Your task to perform on an android device: Open notification settings Image 0: 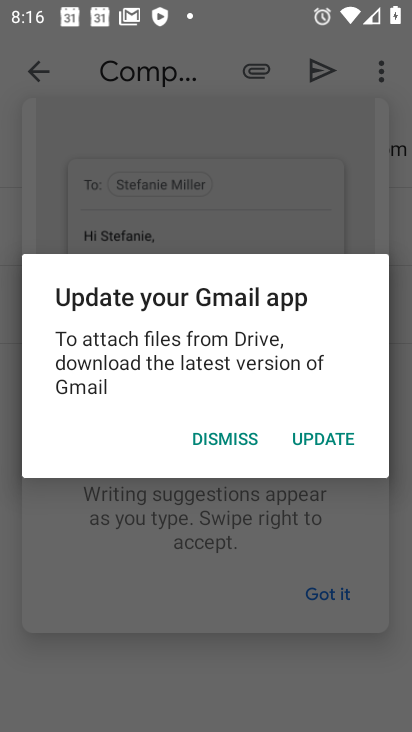
Step 0: click (221, 443)
Your task to perform on an android device: Open notification settings Image 1: 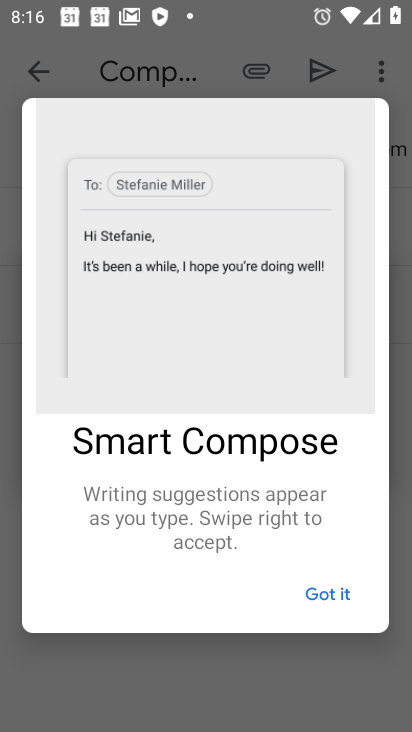
Step 1: click (329, 585)
Your task to perform on an android device: Open notification settings Image 2: 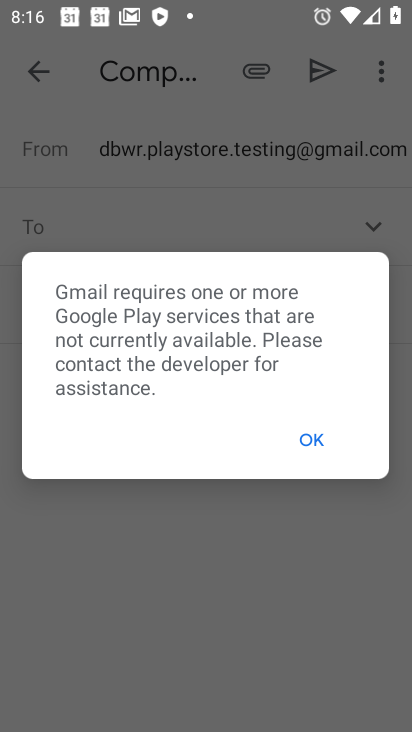
Step 2: click (318, 439)
Your task to perform on an android device: Open notification settings Image 3: 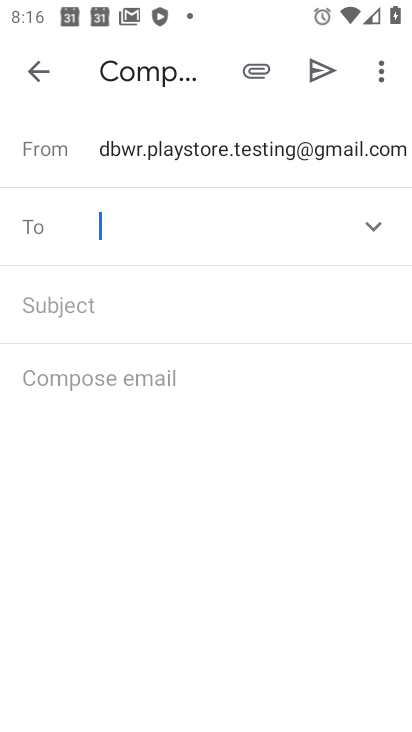
Step 3: click (32, 74)
Your task to perform on an android device: Open notification settings Image 4: 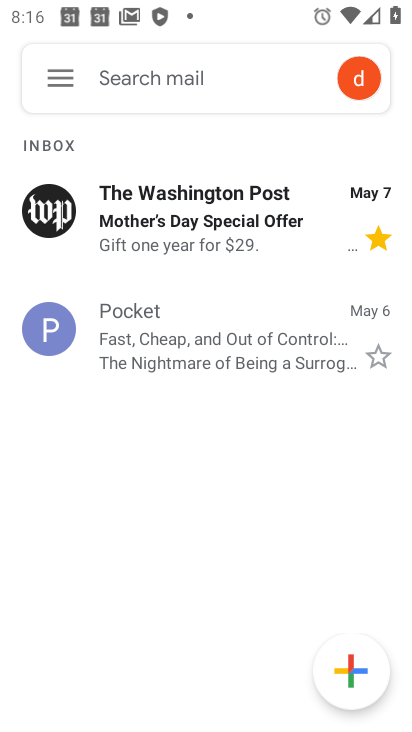
Step 4: press home button
Your task to perform on an android device: Open notification settings Image 5: 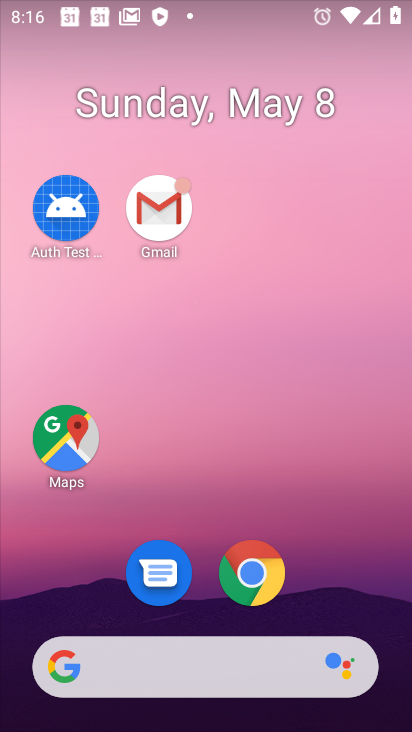
Step 5: drag from (359, 592) to (214, 78)
Your task to perform on an android device: Open notification settings Image 6: 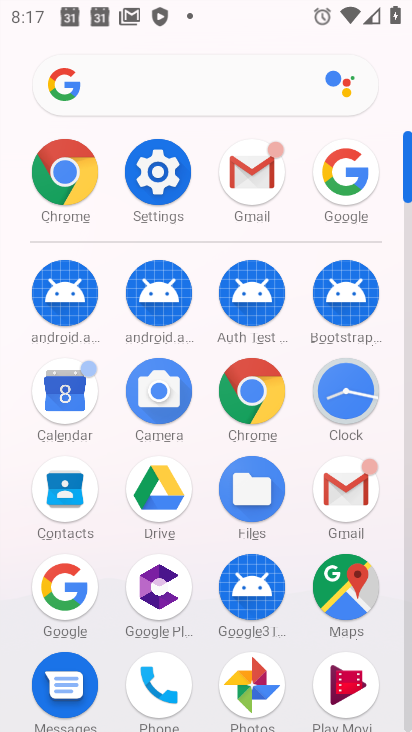
Step 6: click (154, 167)
Your task to perform on an android device: Open notification settings Image 7: 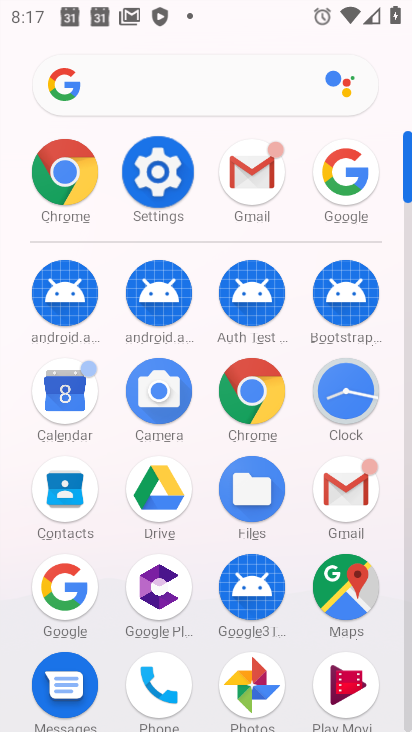
Step 7: click (154, 167)
Your task to perform on an android device: Open notification settings Image 8: 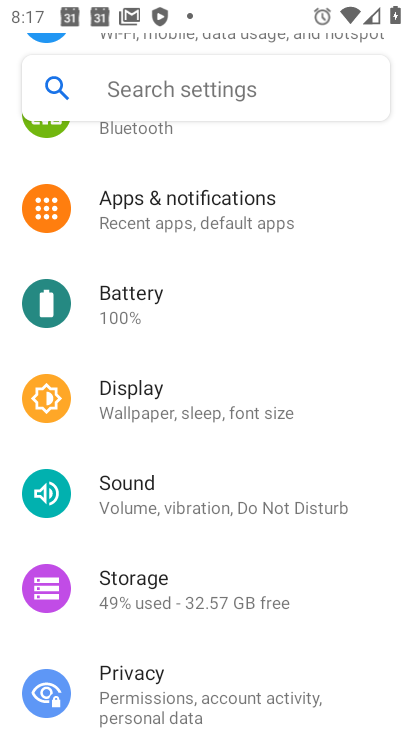
Step 8: click (186, 207)
Your task to perform on an android device: Open notification settings Image 9: 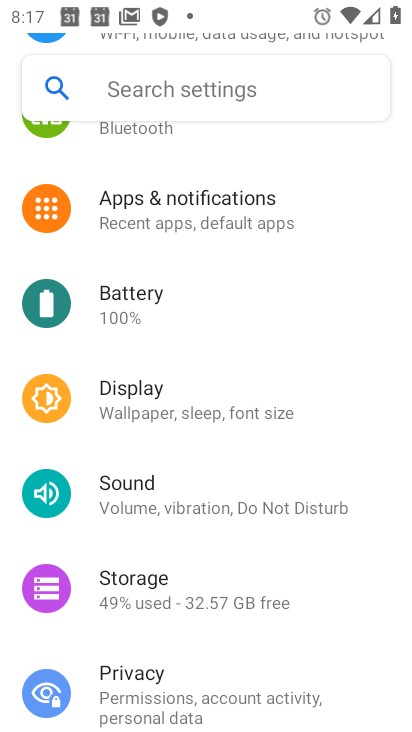
Step 9: click (186, 207)
Your task to perform on an android device: Open notification settings Image 10: 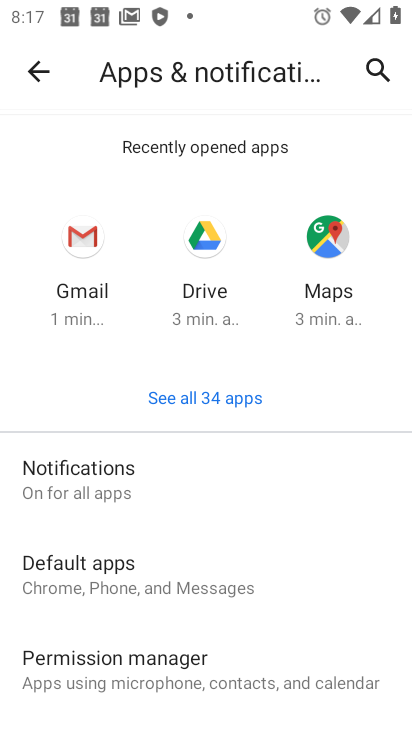
Step 10: click (78, 472)
Your task to perform on an android device: Open notification settings Image 11: 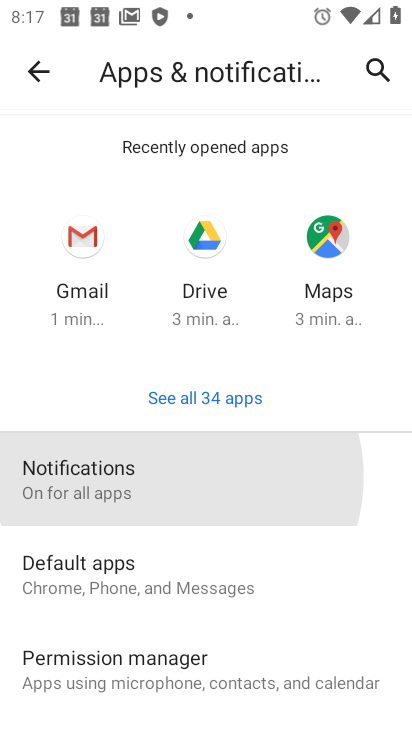
Step 11: click (80, 480)
Your task to perform on an android device: Open notification settings Image 12: 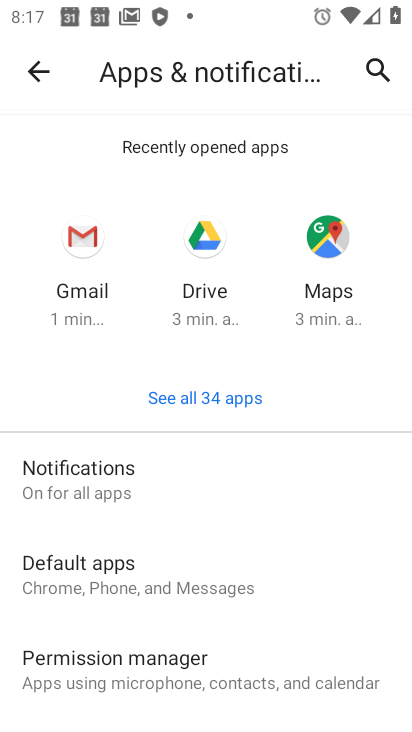
Step 12: click (80, 480)
Your task to perform on an android device: Open notification settings Image 13: 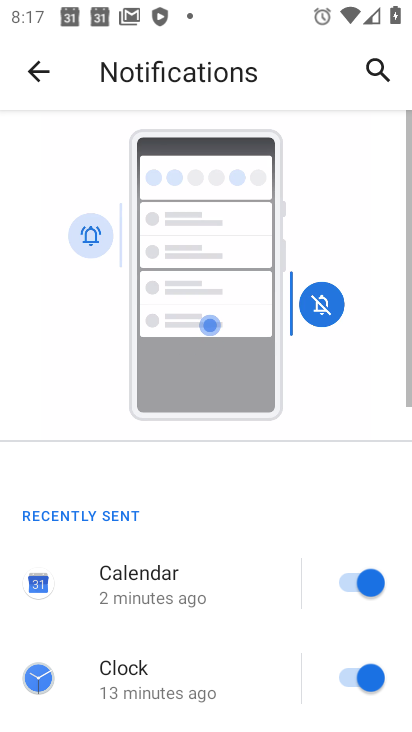
Step 13: drag from (174, 606) to (109, 188)
Your task to perform on an android device: Open notification settings Image 14: 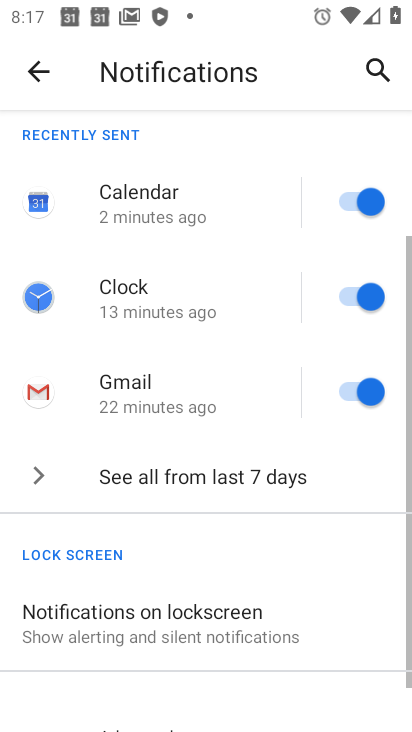
Step 14: click (120, 100)
Your task to perform on an android device: Open notification settings Image 15: 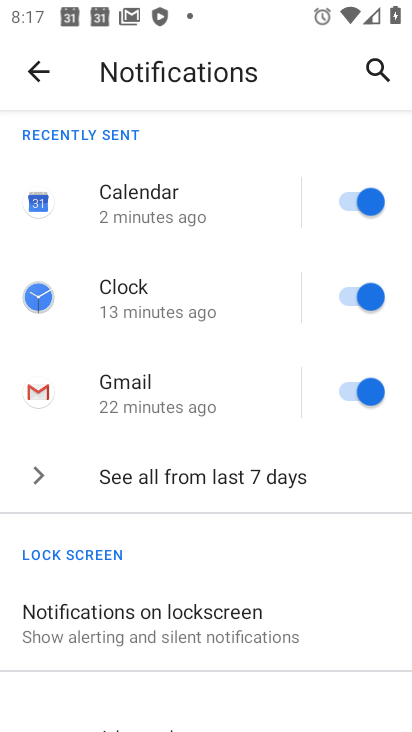
Step 15: drag from (201, 526) to (134, 59)
Your task to perform on an android device: Open notification settings Image 16: 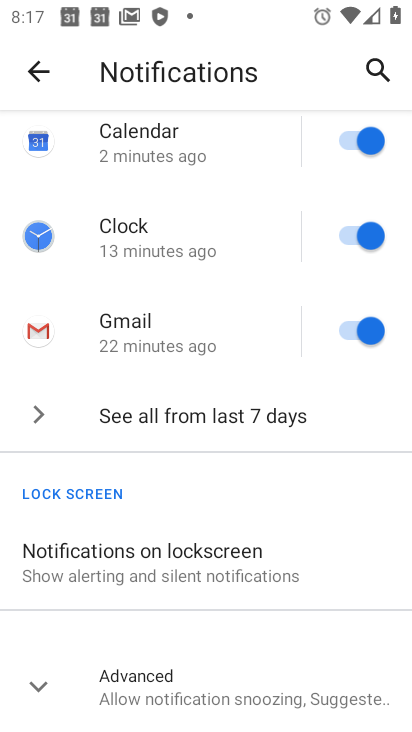
Step 16: drag from (203, 566) to (174, 207)
Your task to perform on an android device: Open notification settings Image 17: 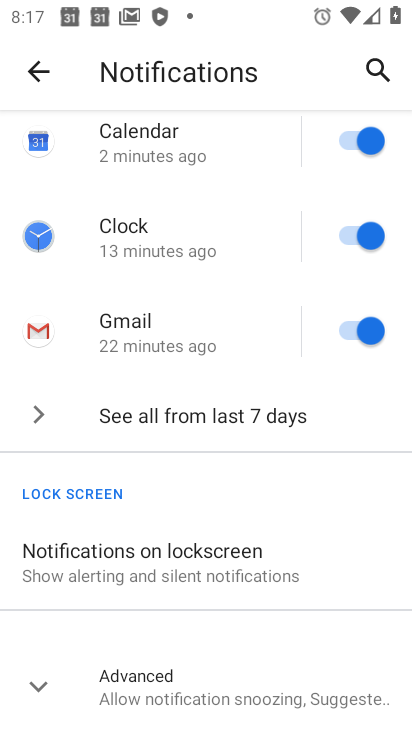
Step 17: click (174, 686)
Your task to perform on an android device: Open notification settings Image 18: 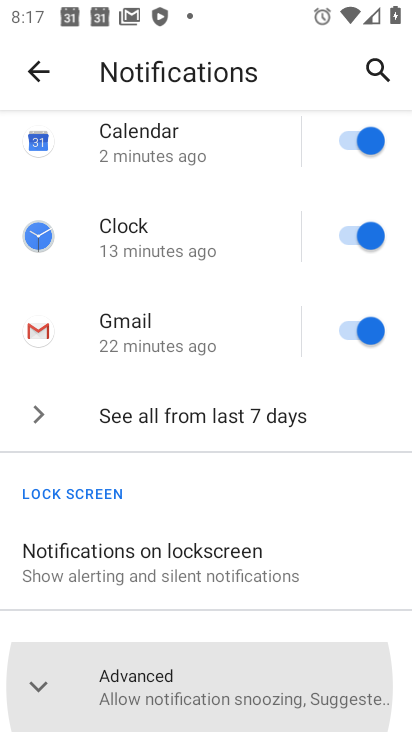
Step 18: click (176, 691)
Your task to perform on an android device: Open notification settings Image 19: 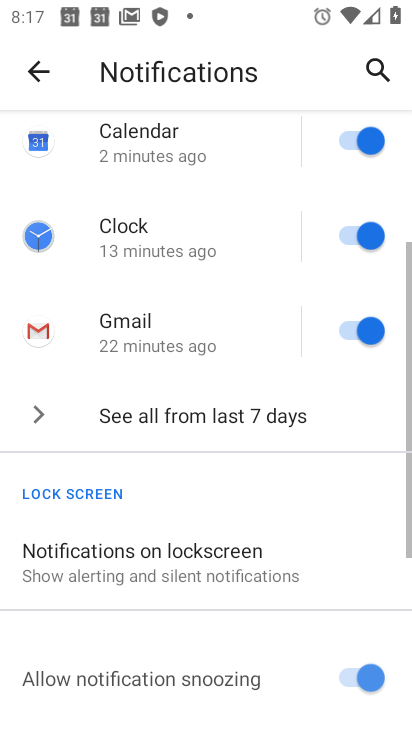
Step 19: click (172, 704)
Your task to perform on an android device: Open notification settings Image 20: 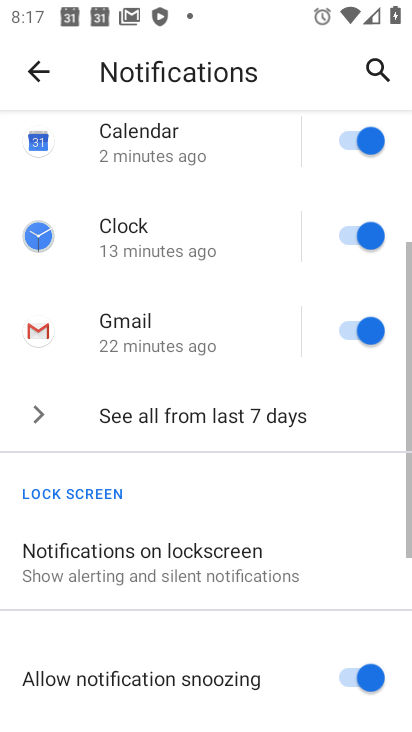
Step 20: click (171, 704)
Your task to perform on an android device: Open notification settings Image 21: 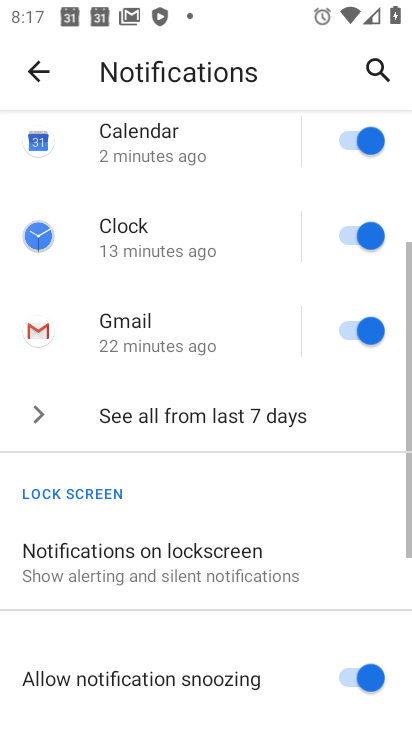
Step 21: task complete